Your task to perform on an android device: turn on location history Image 0: 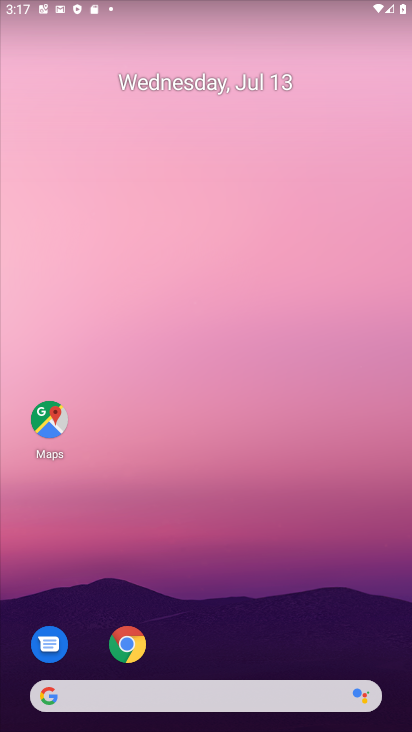
Step 0: drag from (43, 714) to (188, 166)
Your task to perform on an android device: turn on location history Image 1: 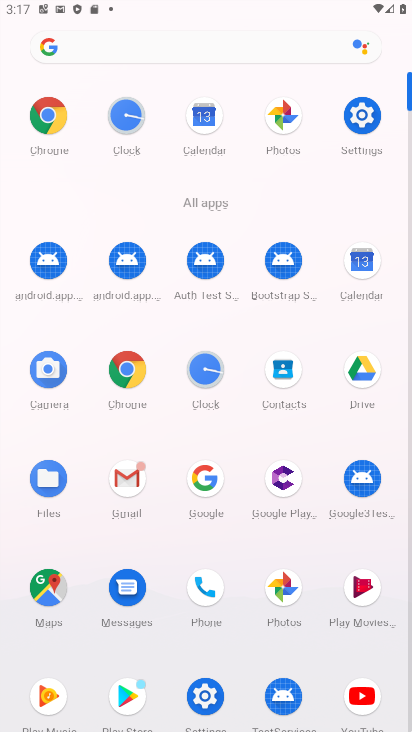
Step 1: click (203, 697)
Your task to perform on an android device: turn on location history Image 2: 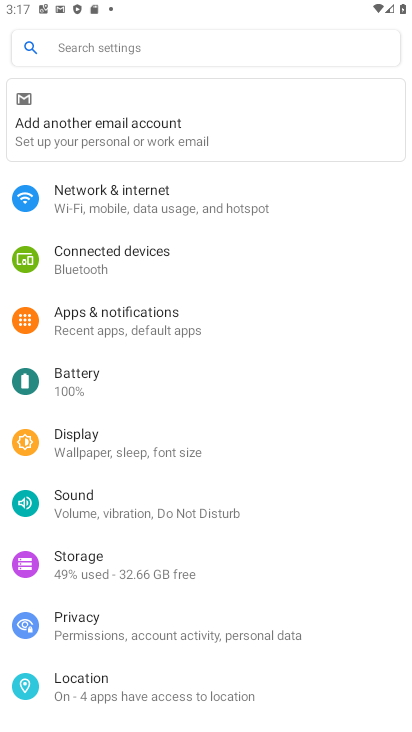
Step 2: click (93, 694)
Your task to perform on an android device: turn on location history Image 3: 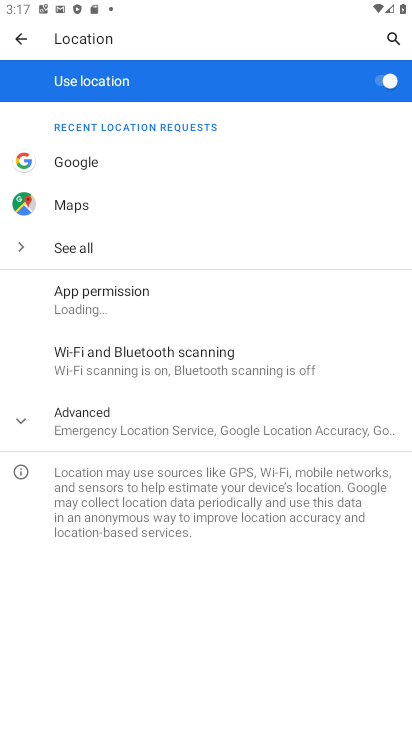
Step 3: click (105, 426)
Your task to perform on an android device: turn on location history Image 4: 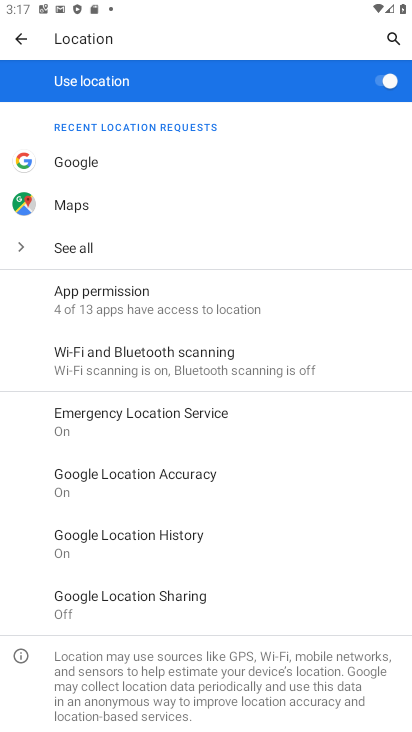
Step 4: click (119, 544)
Your task to perform on an android device: turn on location history Image 5: 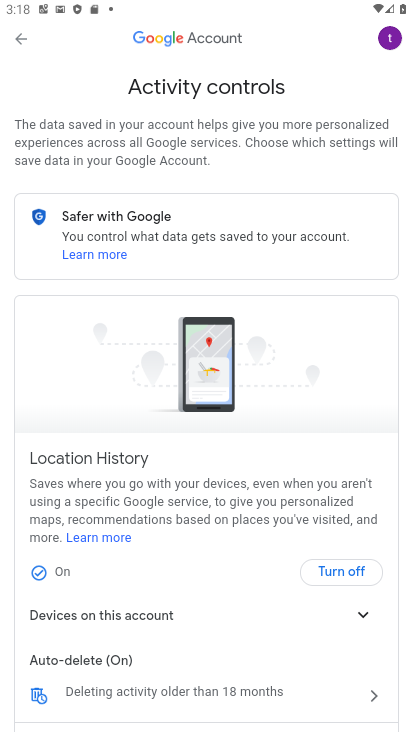
Step 5: task complete